Your task to perform on an android device: turn off sleep mode Image 0: 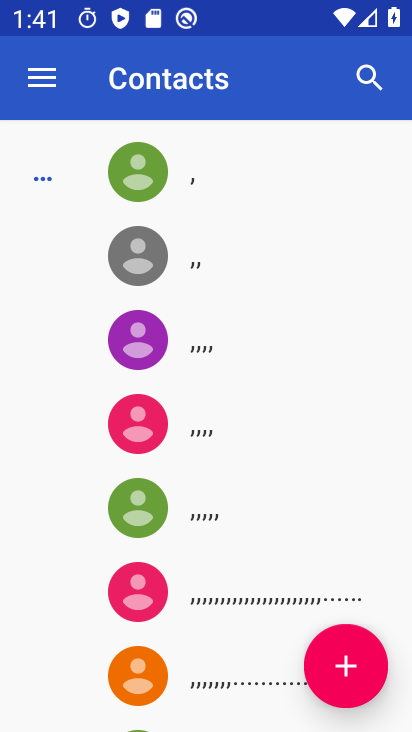
Step 0: press home button
Your task to perform on an android device: turn off sleep mode Image 1: 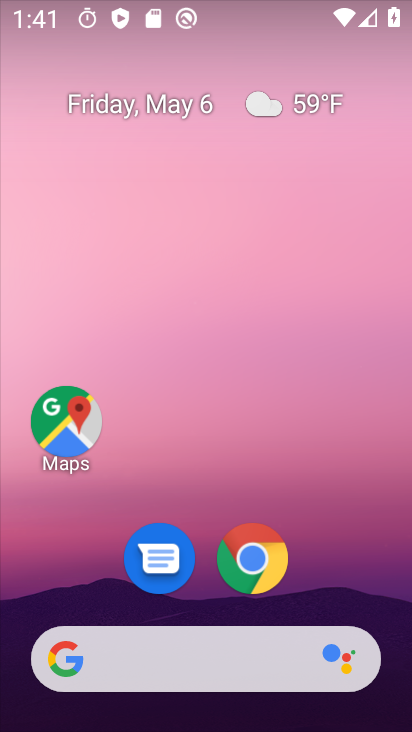
Step 1: drag from (209, 728) to (209, 96)
Your task to perform on an android device: turn off sleep mode Image 2: 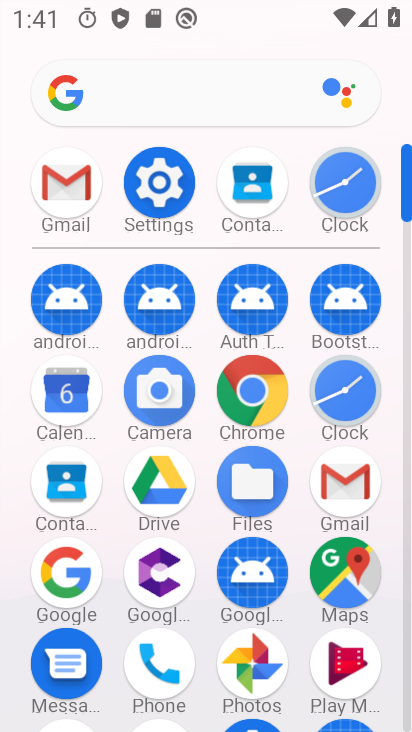
Step 2: click (162, 169)
Your task to perform on an android device: turn off sleep mode Image 3: 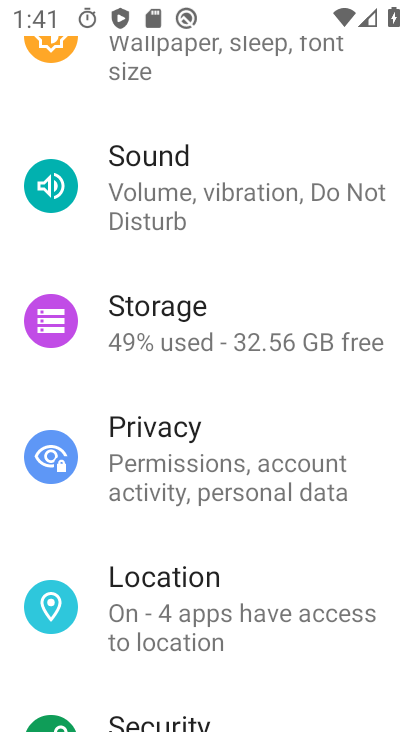
Step 3: drag from (161, 684) to (159, 369)
Your task to perform on an android device: turn off sleep mode Image 4: 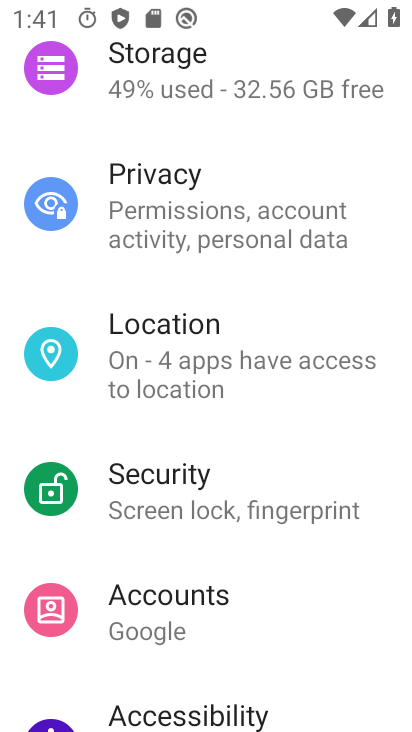
Step 4: drag from (180, 665) to (194, 200)
Your task to perform on an android device: turn off sleep mode Image 5: 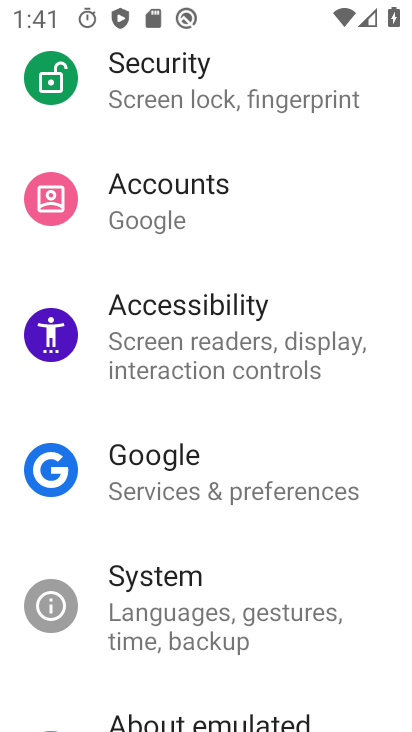
Step 5: drag from (187, 681) to (191, 269)
Your task to perform on an android device: turn off sleep mode Image 6: 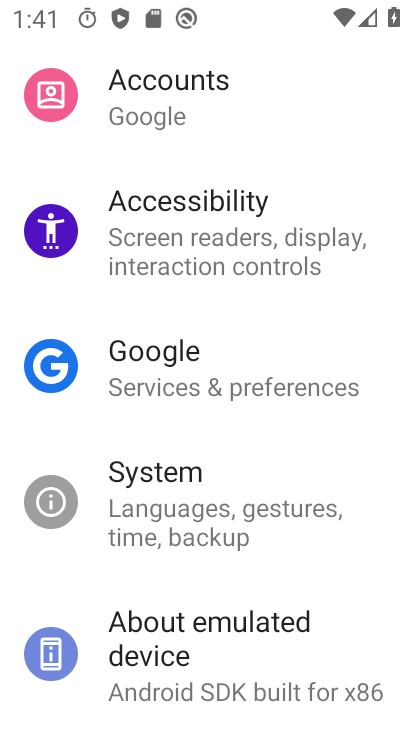
Step 6: drag from (183, 168) to (193, 623)
Your task to perform on an android device: turn off sleep mode Image 7: 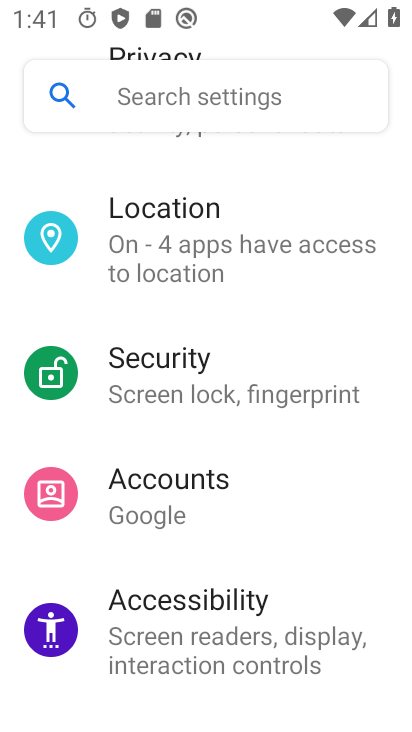
Step 7: drag from (182, 168) to (194, 627)
Your task to perform on an android device: turn off sleep mode Image 8: 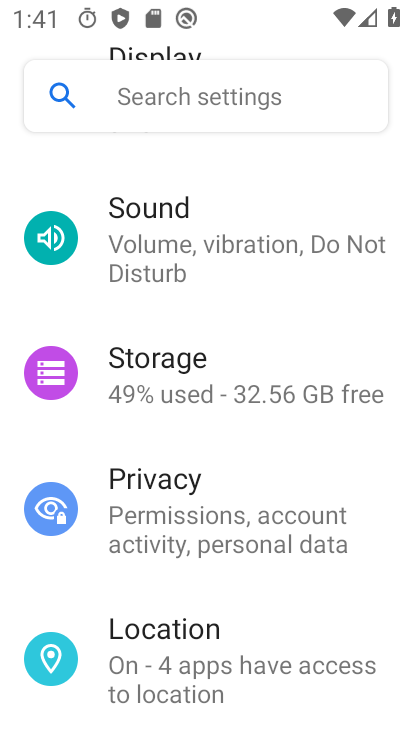
Step 8: drag from (178, 189) to (188, 573)
Your task to perform on an android device: turn off sleep mode Image 9: 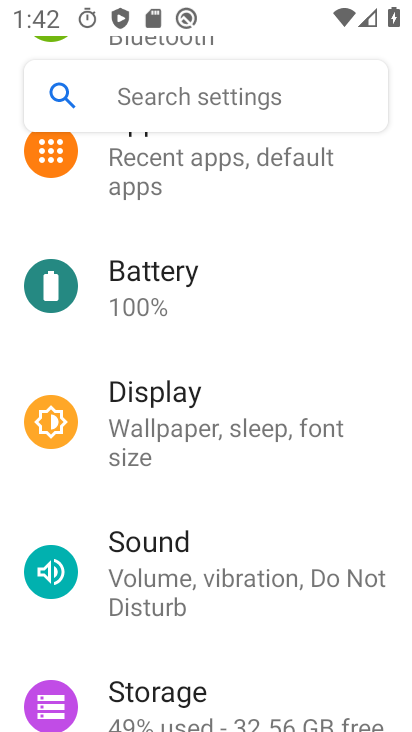
Step 9: drag from (186, 241) to (185, 530)
Your task to perform on an android device: turn off sleep mode Image 10: 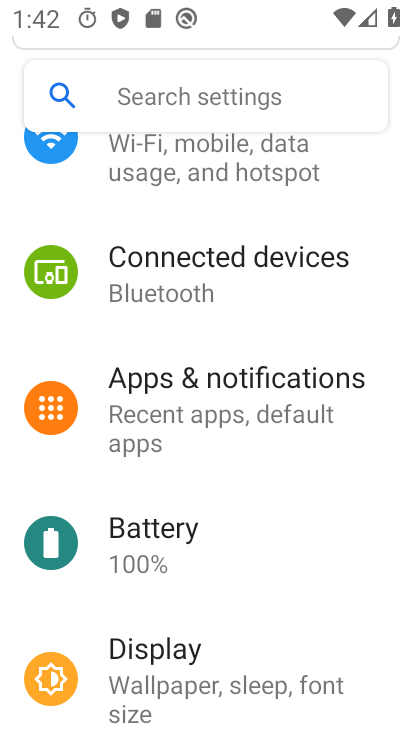
Step 10: drag from (202, 216) to (199, 467)
Your task to perform on an android device: turn off sleep mode Image 11: 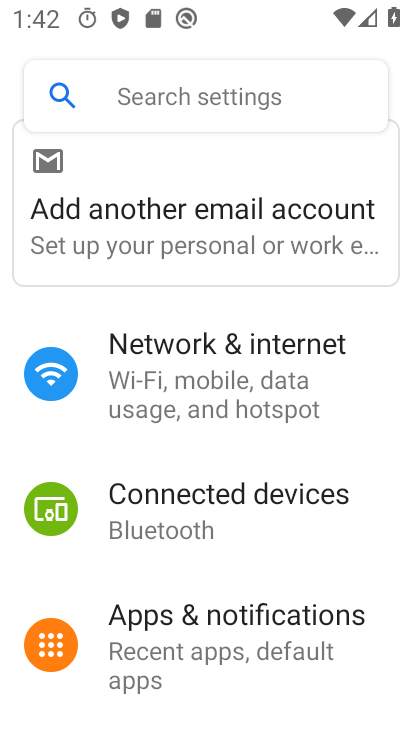
Step 11: drag from (222, 690) to (231, 292)
Your task to perform on an android device: turn off sleep mode Image 12: 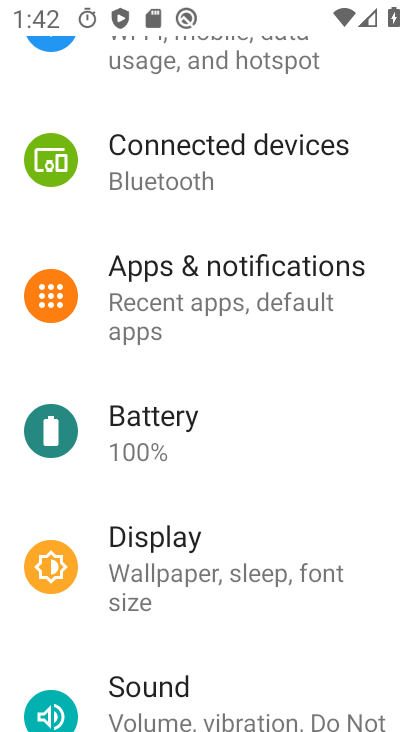
Step 12: drag from (211, 638) to (205, 414)
Your task to perform on an android device: turn off sleep mode Image 13: 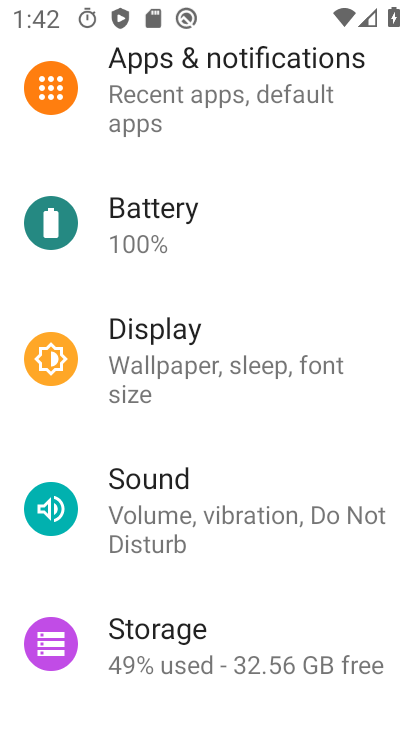
Step 13: click (195, 364)
Your task to perform on an android device: turn off sleep mode Image 14: 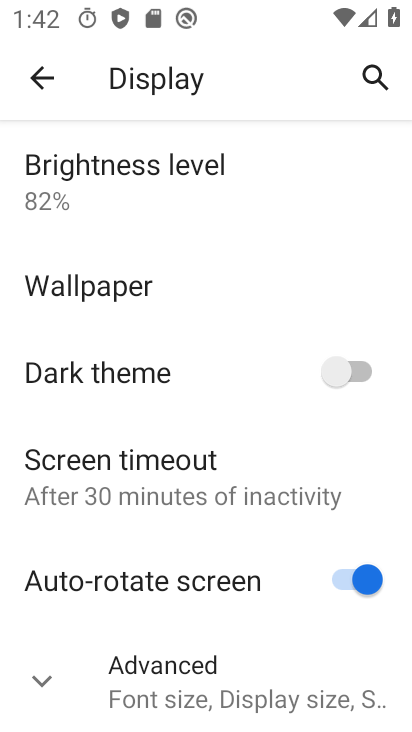
Step 14: task complete